Your task to perform on an android device: Open the calendar app, open the side menu, and click the "Day" option Image 0: 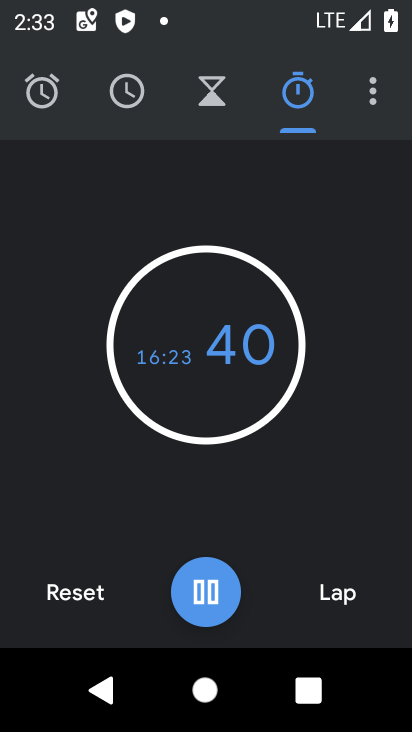
Step 0: press home button
Your task to perform on an android device: Open the calendar app, open the side menu, and click the "Day" option Image 1: 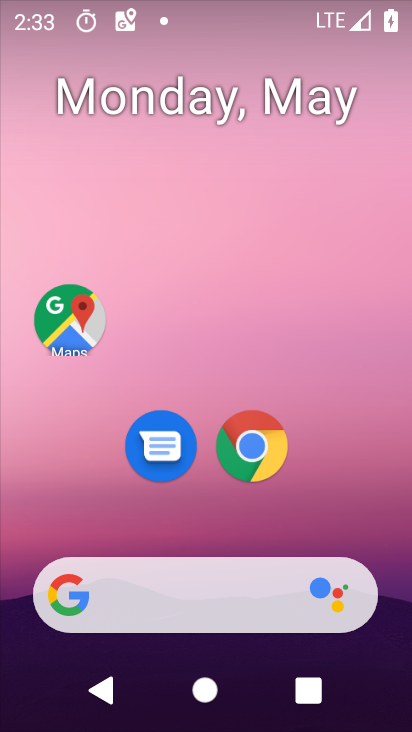
Step 1: drag from (203, 579) to (210, 32)
Your task to perform on an android device: Open the calendar app, open the side menu, and click the "Day" option Image 2: 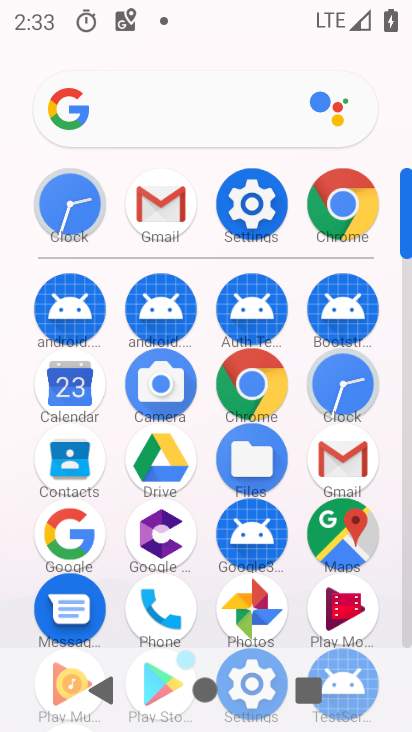
Step 2: click (74, 388)
Your task to perform on an android device: Open the calendar app, open the side menu, and click the "Day" option Image 3: 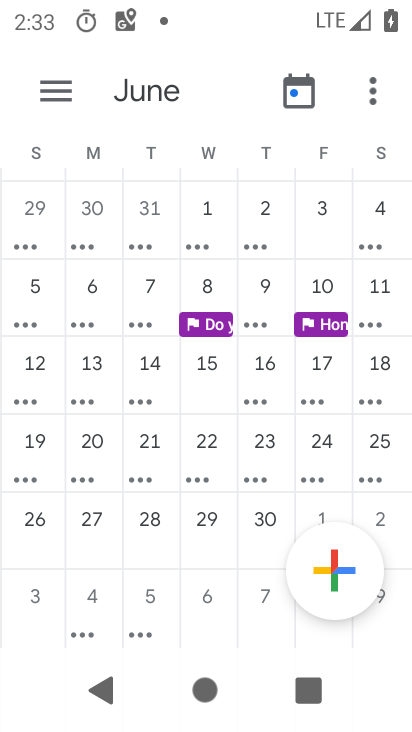
Step 3: click (47, 73)
Your task to perform on an android device: Open the calendar app, open the side menu, and click the "Day" option Image 4: 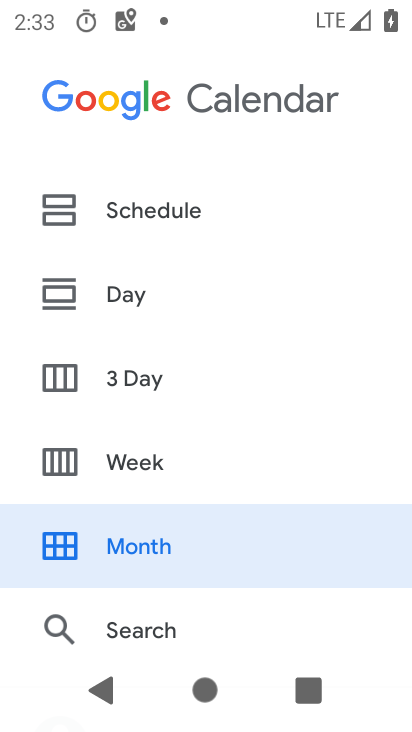
Step 4: click (116, 281)
Your task to perform on an android device: Open the calendar app, open the side menu, and click the "Day" option Image 5: 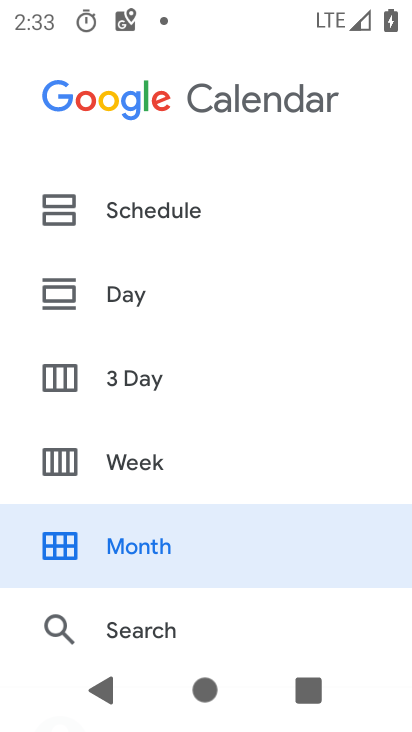
Step 5: click (74, 281)
Your task to perform on an android device: Open the calendar app, open the side menu, and click the "Day" option Image 6: 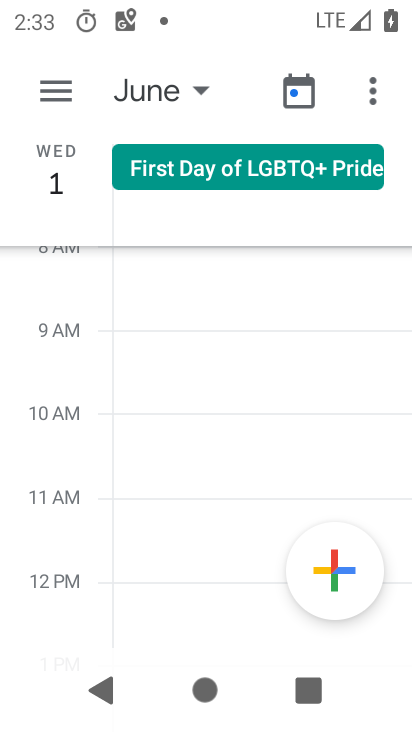
Step 6: task complete